Your task to perform on an android device: Go to wifi settings Image 0: 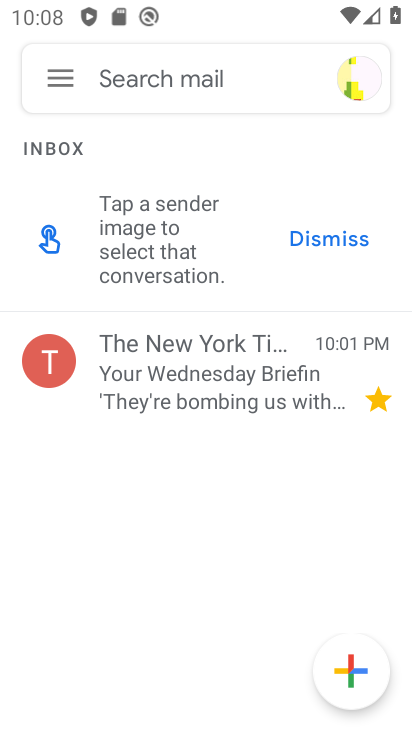
Step 0: press home button
Your task to perform on an android device: Go to wifi settings Image 1: 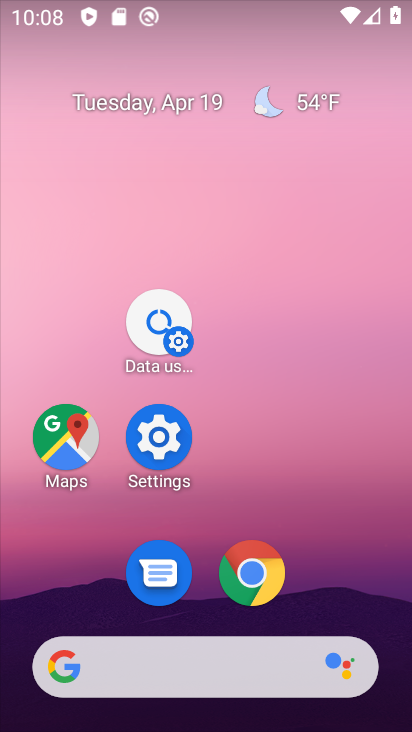
Step 1: click (153, 431)
Your task to perform on an android device: Go to wifi settings Image 2: 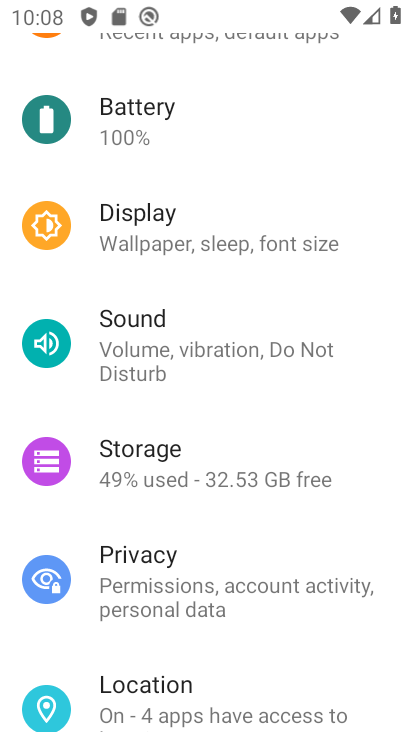
Step 2: drag from (316, 196) to (346, 626)
Your task to perform on an android device: Go to wifi settings Image 3: 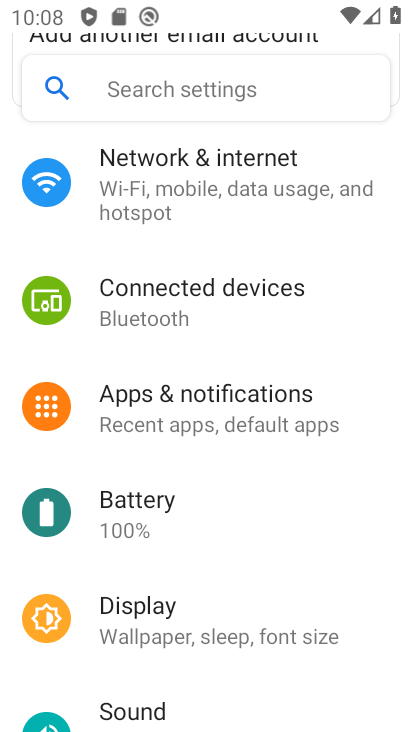
Step 3: click (157, 193)
Your task to perform on an android device: Go to wifi settings Image 4: 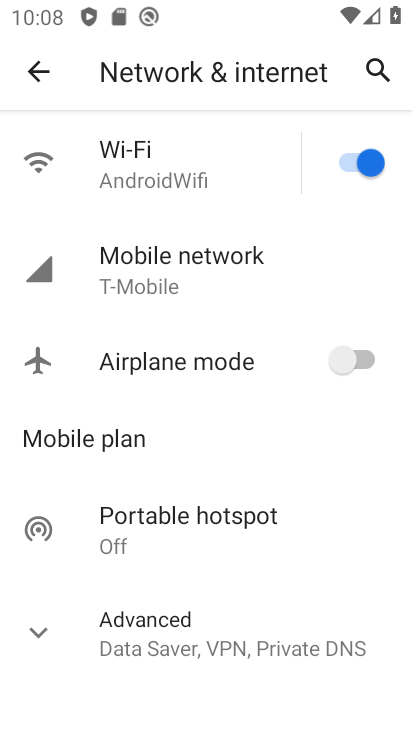
Step 4: click (120, 152)
Your task to perform on an android device: Go to wifi settings Image 5: 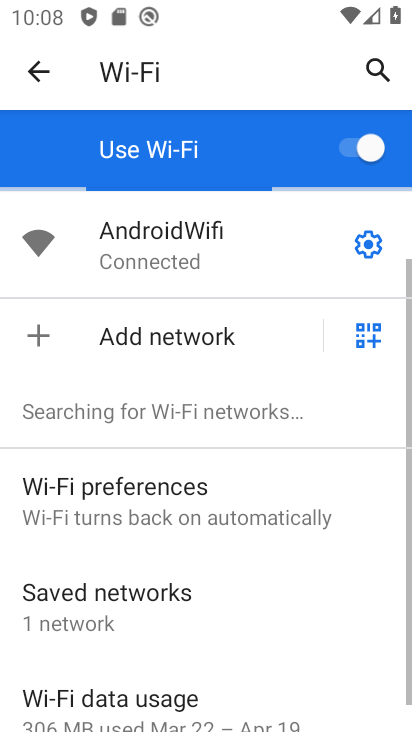
Step 5: task complete